Your task to perform on an android device: open a new tab in the chrome app Image 0: 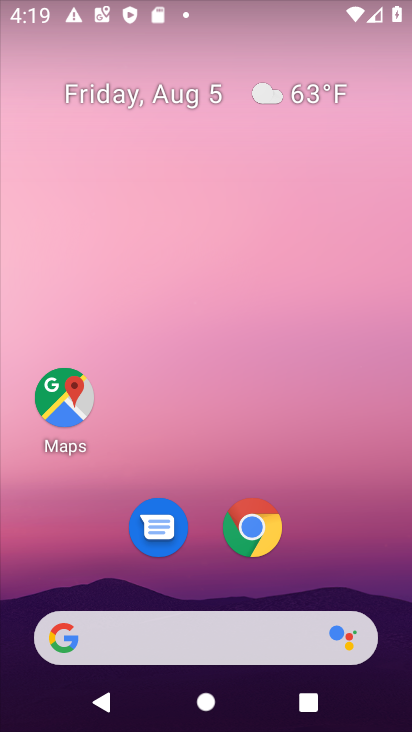
Step 0: click (252, 527)
Your task to perform on an android device: open a new tab in the chrome app Image 1: 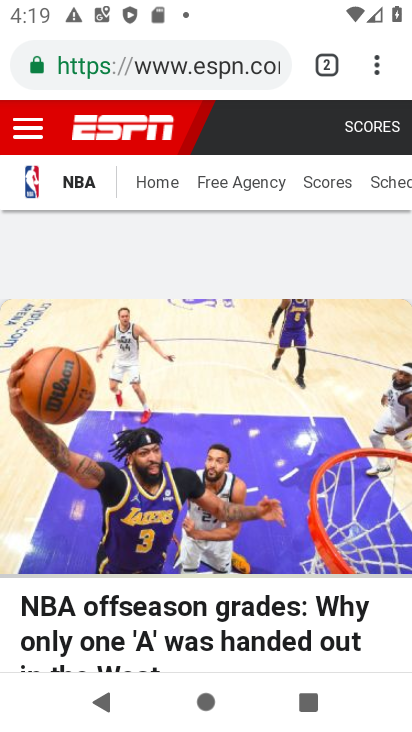
Step 1: click (378, 73)
Your task to perform on an android device: open a new tab in the chrome app Image 2: 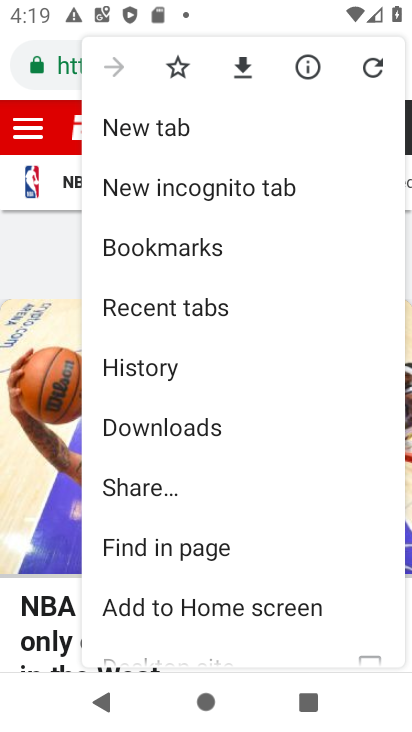
Step 2: click (132, 132)
Your task to perform on an android device: open a new tab in the chrome app Image 3: 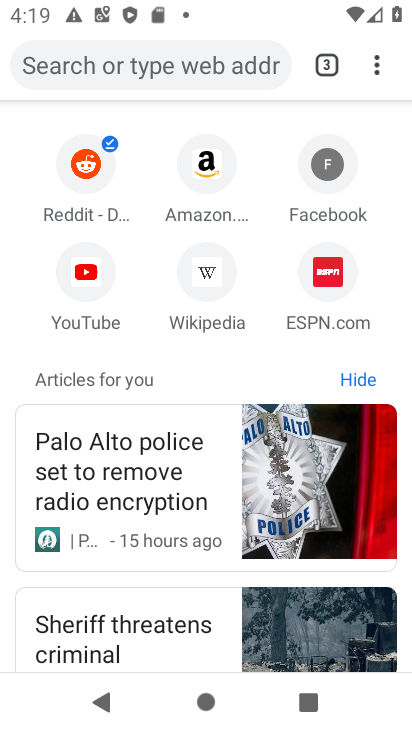
Step 3: task complete